Your task to perform on an android device: Open the phone app and click the voicemail tab. Image 0: 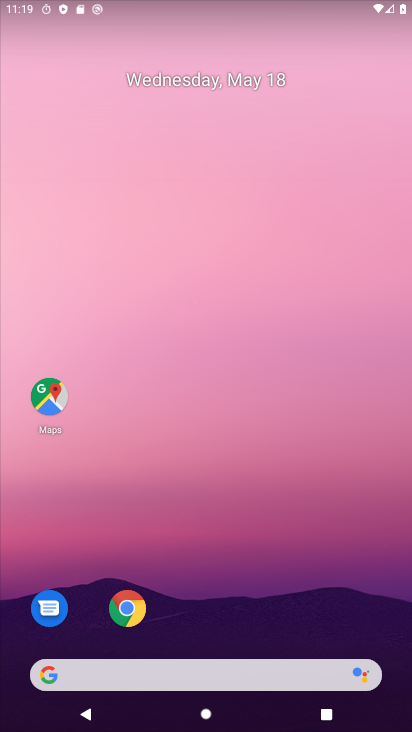
Step 0: drag from (246, 615) to (187, 148)
Your task to perform on an android device: Open the phone app and click the voicemail tab. Image 1: 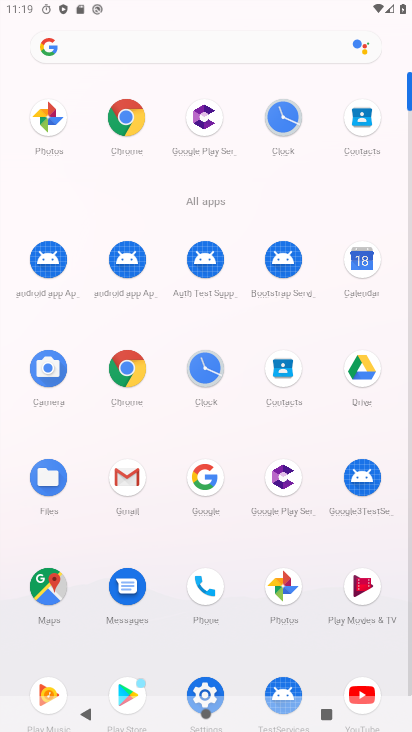
Step 1: click (199, 587)
Your task to perform on an android device: Open the phone app and click the voicemail tab. Image 2: 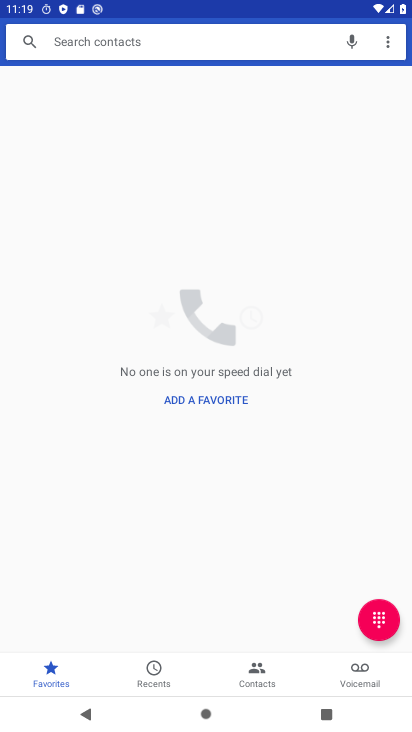
Step 2: click (369, 672)
Your task to perform on an android device: Open the phone app and click the voicemail tab. Image 3: 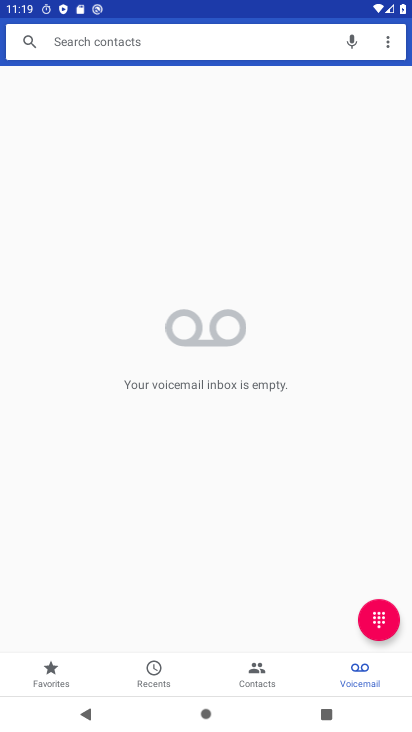
Step 3: task complete